Your task to perform on an android device: turn vacation reply on in the gmail app Image 0: 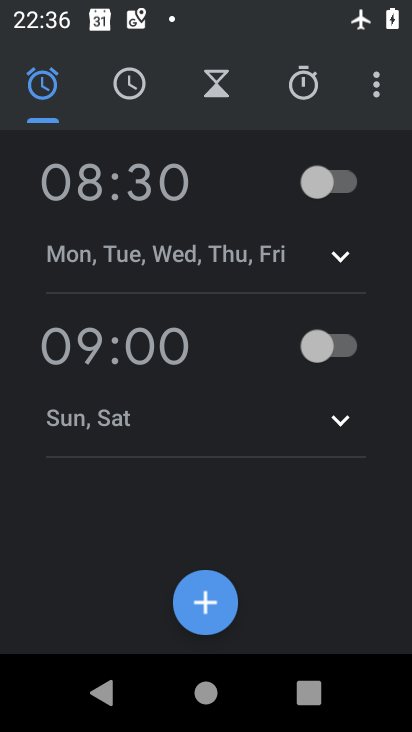
Step 0: press home button
Your task to perform on an android device: turn vacation reply on in the gmail app Image 1: 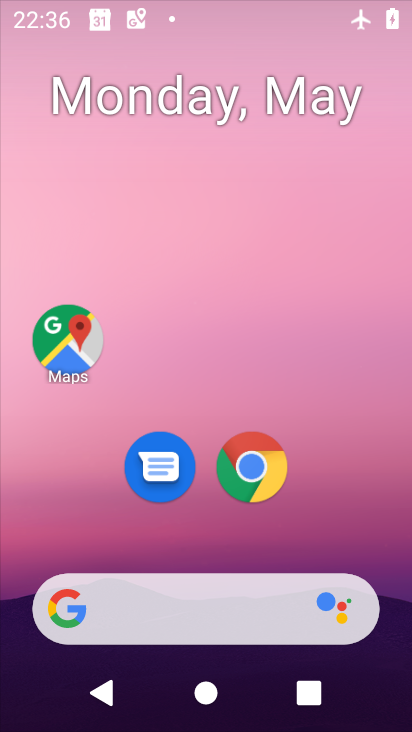
Step 1: drag from (233, 525) to (286, 229)
Your task to perform on an android device: turn vacation reply on in the gmail app Image 2: 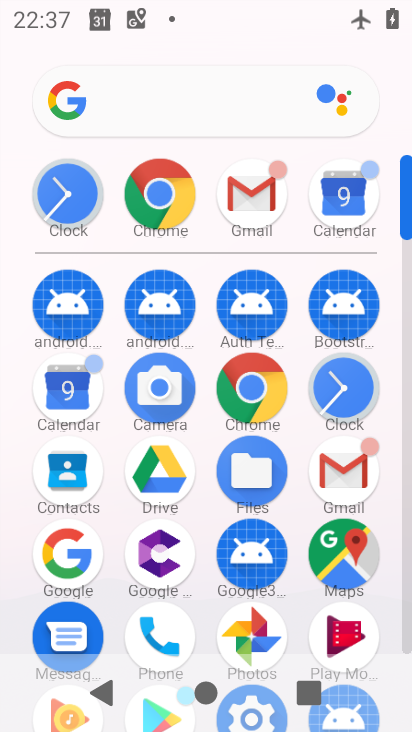
Step 2: click (250, 190)
Your task to perform on an android device: turn vacation reply on in the gmail app Image 3: 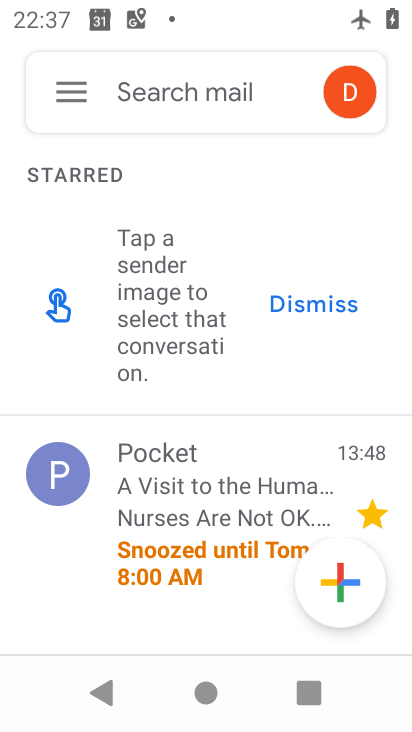
Step 3: click (61, 94)
Your task to perform on an android device: turn vacation reply on in the gmail app Image 4: 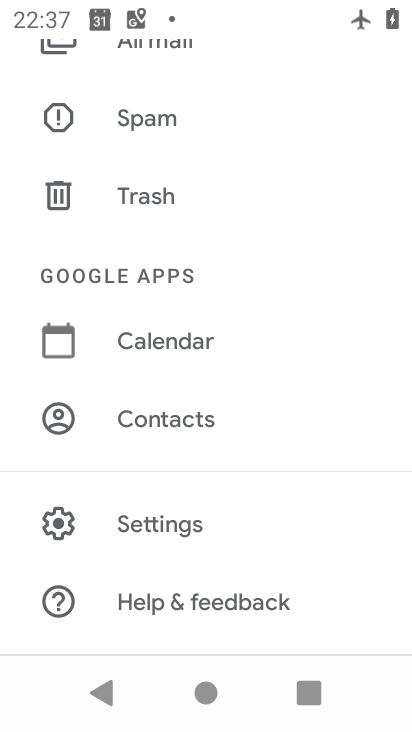
Step 4: click (201, 526)
Your task to perform on an android device: turn vacation reply on in the gmail app Image 5: 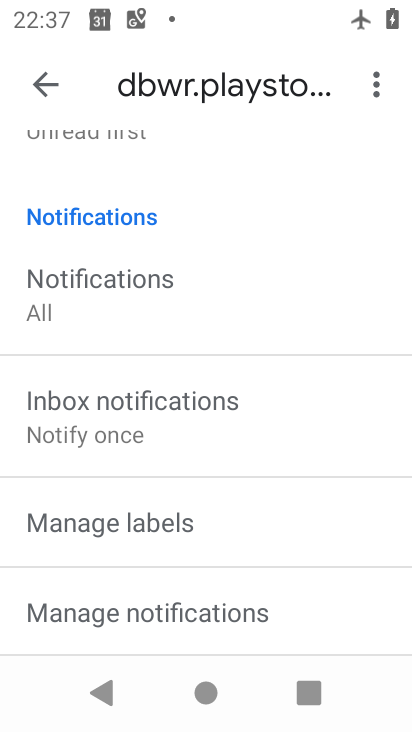
Step 5: drag from (246, 577) to (337, 190)
Your task to perform on an android device: turn vacation reply on in the gmail app Image 6: 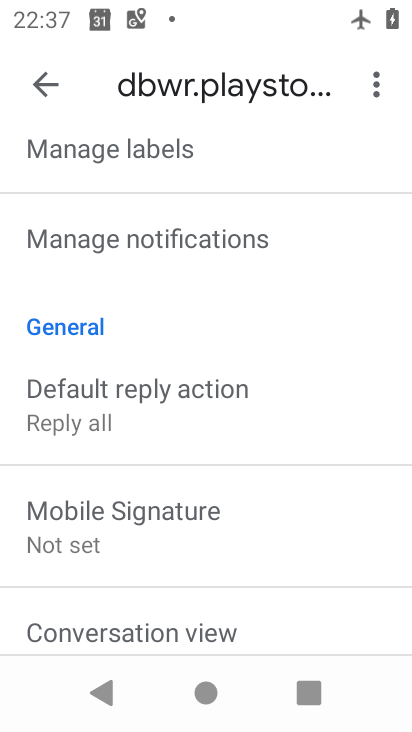
Step 6: drag from (213, 581) to (312, 183)
Your task to perform on an android device: turn vacation reply on in the gmail app Image 7: 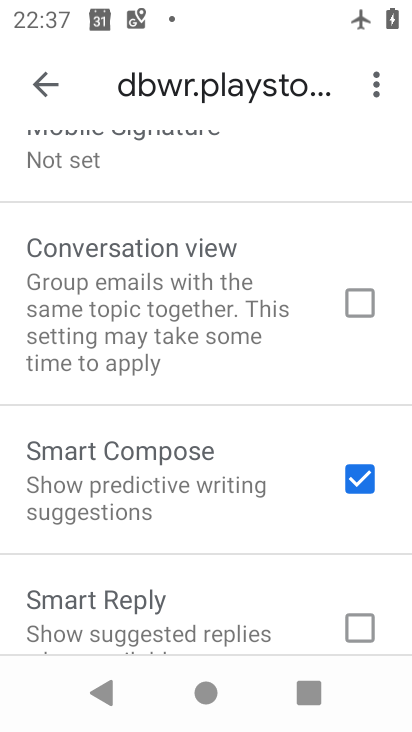
Step 7: drag from (211, 558) to (284, 190)
Your task to perform on an android device: turn vacation reply on in the gmail app Image 8: 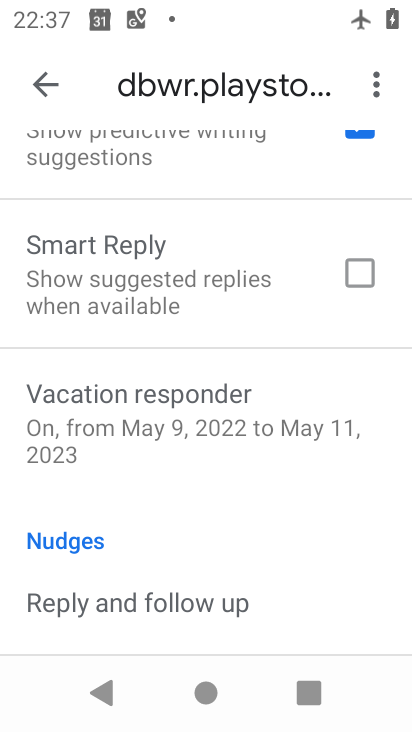
Step 8: click (216, 414)
Your task to perform on an android device: turn vacation reply on in the gmail app Image 9: 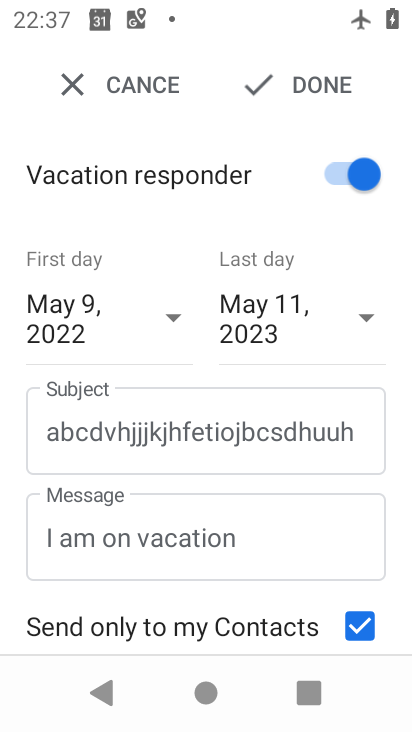
Step 9: task complete